Your task to perform on an android device: search for starred emails in the gmail app Image 0: 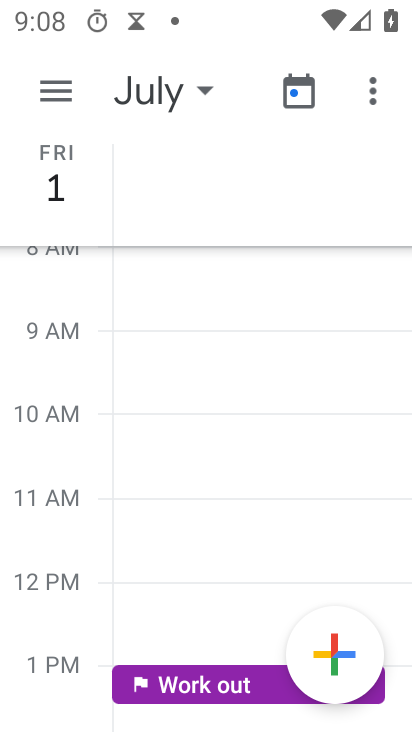
Step 0: press home button
Your task to perform on an android device: search for starred emails in the gmail app Image 1: 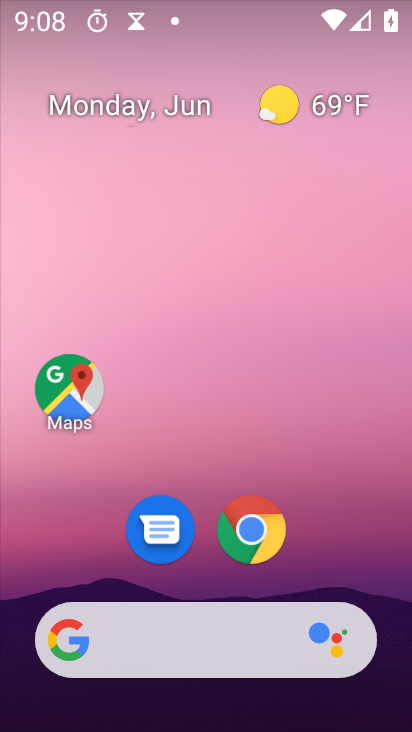
Step 1: drag from (365, 586) to (326, 49)
Your task to perform on an android device: search for starred emails in the gmail app Image 2: 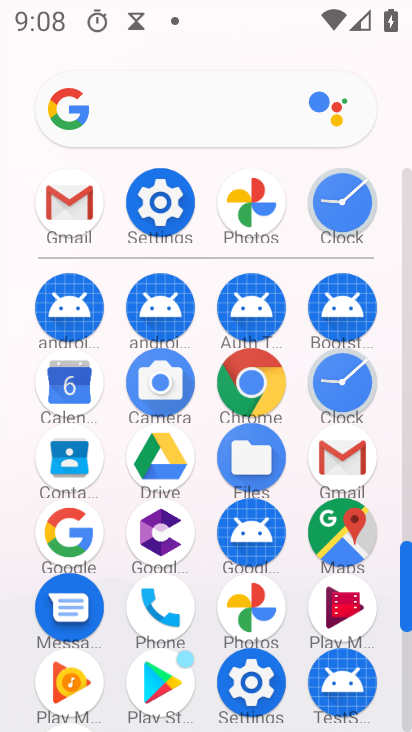
Step 2: click (78, 204)
Your task to perform on an android device: search for starred emails in the gmail app Image 3: 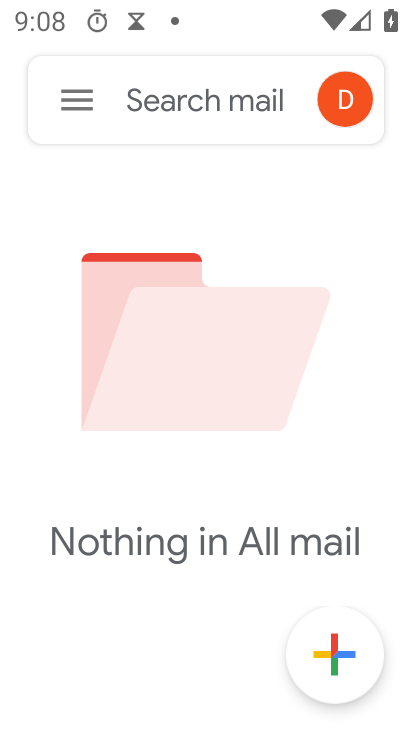
Step 3: click (77, 98)
Your task to perform on an android device: search for starred emails in the gmail app Image 4: 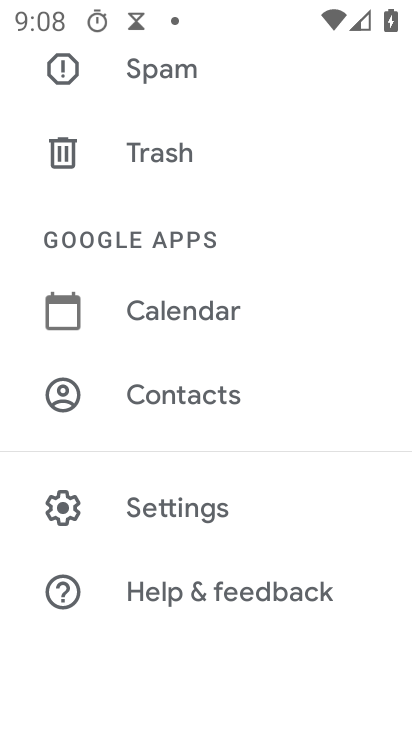
Step 4: drag from (254, 111) to (286, 648)
Your task to perform on an android device: search for starred emails in the gmail app Image 5: 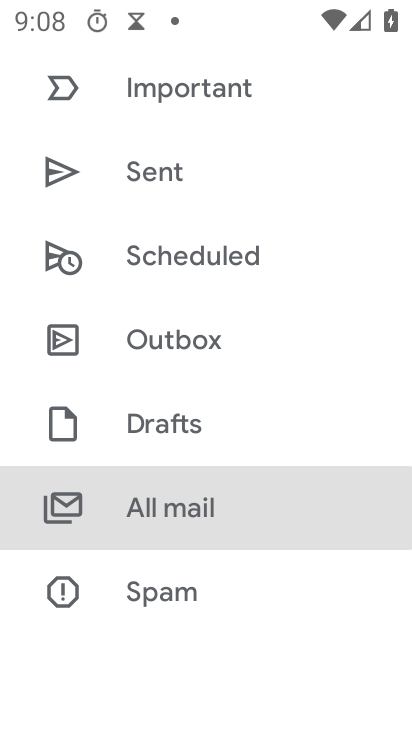
Step 5: drag from (292, 132) to (283, 707)
Your task to perform on an android device: search for starred emails in the gmail app Image 6: 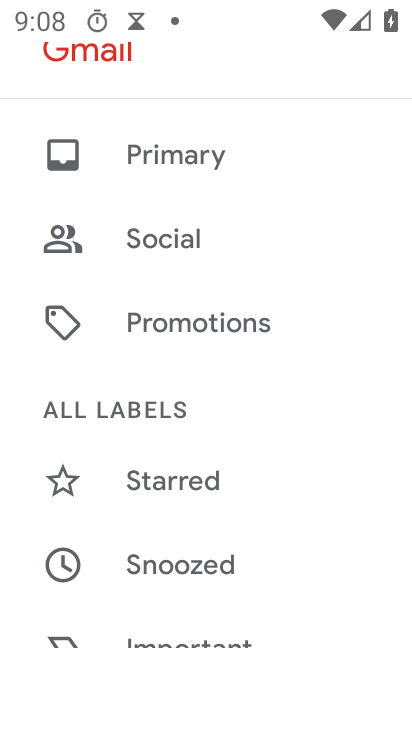
Step 6: click (205, 475)
Your task to perform on an android device: search for starred emails in the gmail app Image 7: 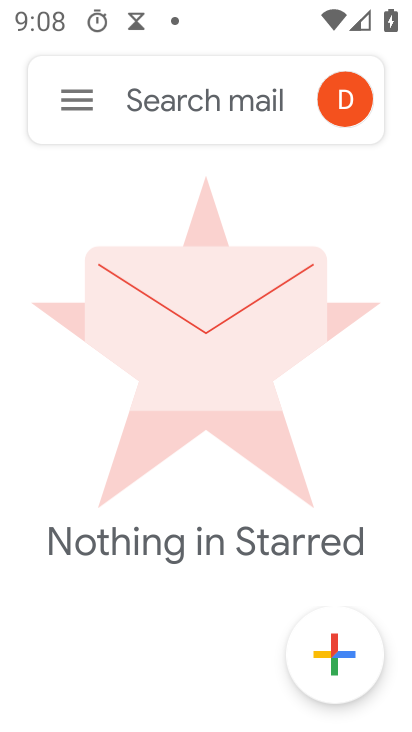
Step 7: task complete